Your task to perform on an android device: set the timer Image 0: 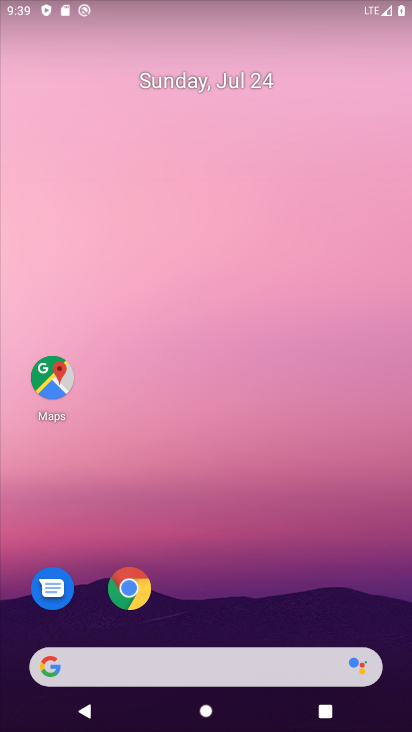
Step 0: drag from (262, 612) to (379, 507)
Your task to perform on an android device: set the timer Image 1: 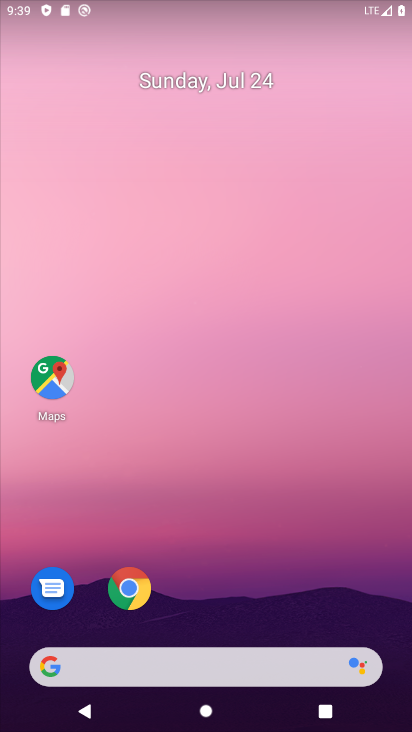
Step 1: drag from (265, 687) to (282, 107)
Your task to perform on an android device: set the timer Image 2: 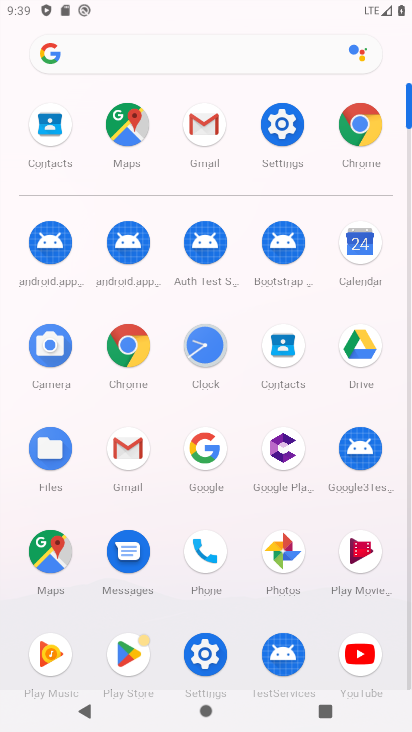
Step 2: click (208, 352)
Your task to perform on an android device: set the timer Image 3: 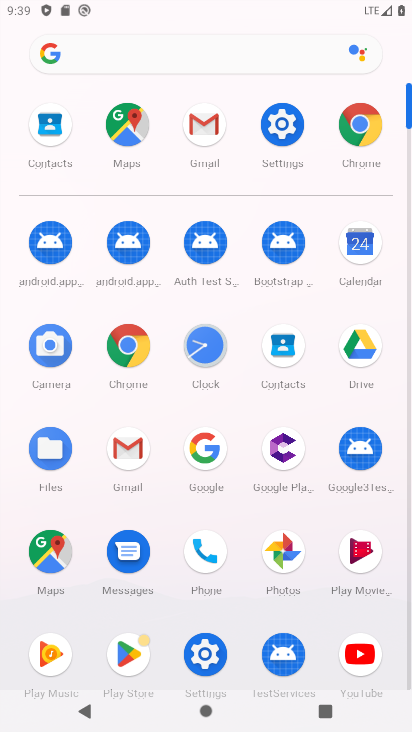
Step 3: click (208, 352)
Your task to perform on an android device: set the timer Image 4: 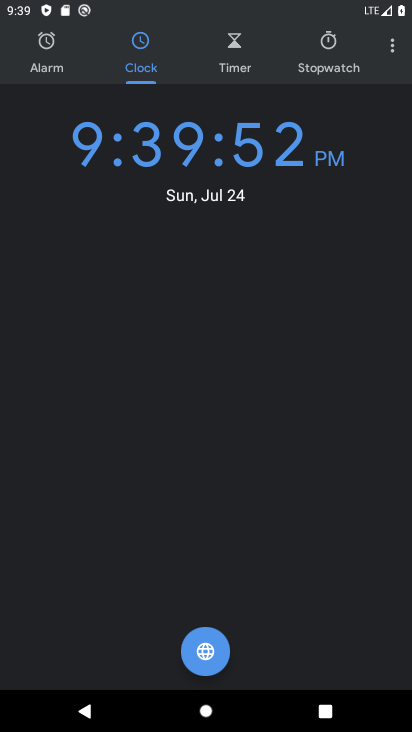
Step 4: click (220, 44)
Your task to perform on an android device: set the timer Image 5: 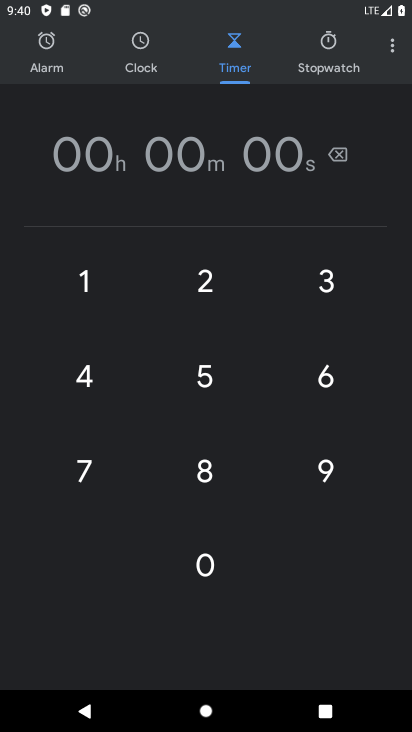
Step 5: click (197, 283)
Your task to perform on an android device: set the timer Image 6: 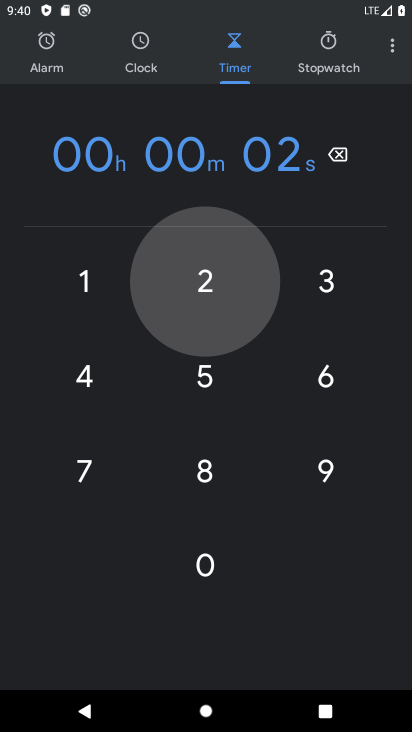
Step 6: click (198, 369)
Your task to perform on an android device: set the timer Image 7: 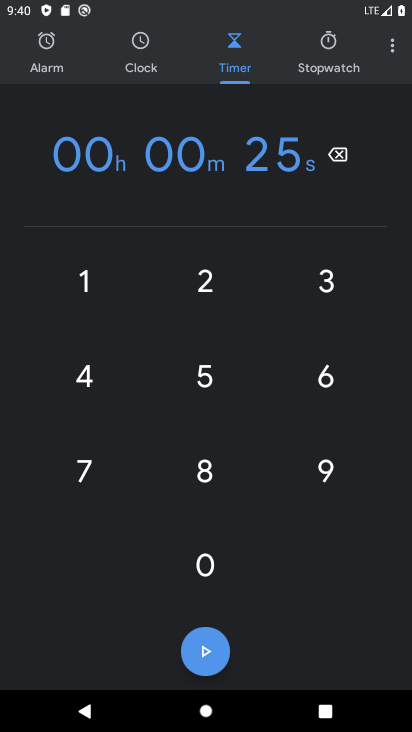
Step 7: click (328, 267)
Your task to perform on an android device: set the timer Image 8: 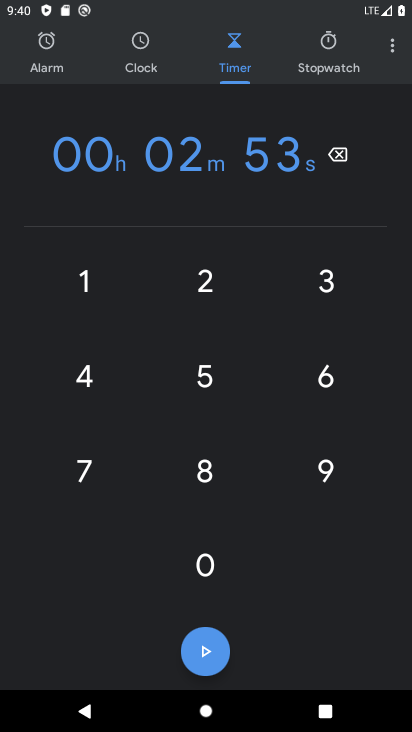
Step 8: task complete